Your task to perform on an android device: Search for the new Nike Air Max 270 on Nike.com Image 0: 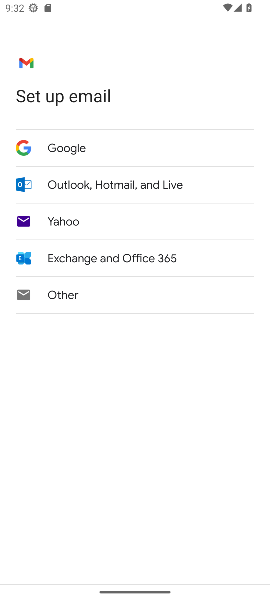
Step 0: press home button
Your task to perform on an android device: Search for the new Nike Air Max 270 on Nike.com Image 1: 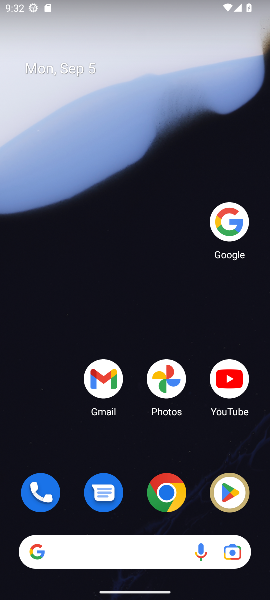
Step 1: click (234, 218)
Your task to perform on an android device: Search for the new Nike Air Max 270 on Nike.com Image 2: 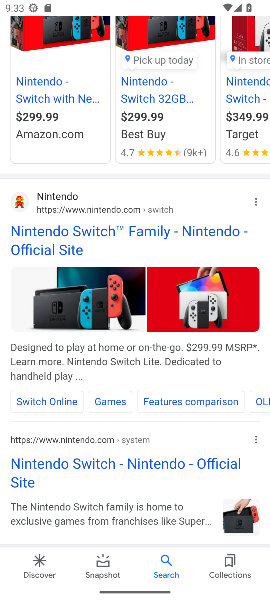
Step 2: drag from (133, 89) to (129, 424)
Your task to perform on an android device: Search for the new Nike Air Max 270 on Nike.com Image 3: 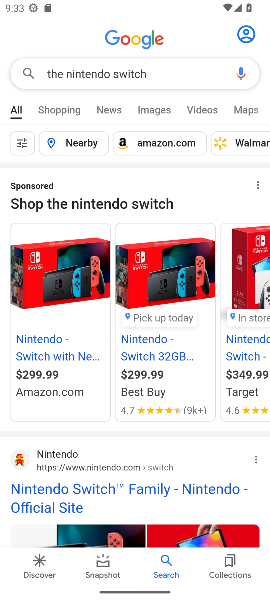
Step 3: drag from (210, 141) to (186, 503)
Your task to perform on an android device: Search for the new Nike Air Max 270 on Nike.com Image 4: 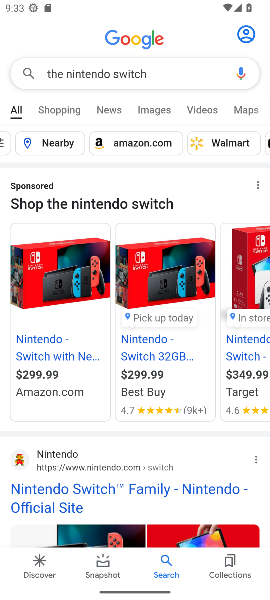
Step 4: click (161, 63)
Your task to perform on an android device: Search for the new Nike Air Max 270 on Nike.com Image 5: 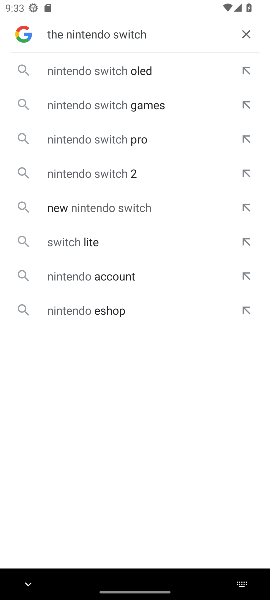
Step 5: click (243, 31)
Your task to perform on an android device: Search for the new Nike Air Max 270 on Nike.com Image 6: 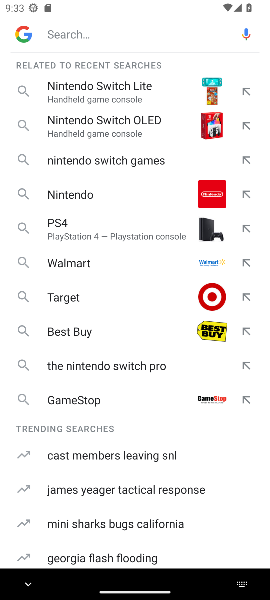
Step 6: click (115, 35)
Your task to perform on an android device: Search for the new Nike Air Max 270 on Nike.com Image 7: 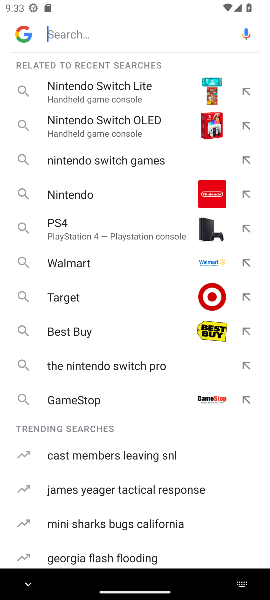
Step 7: type "the new Nike Air Max 270 on Nike.com "
Your task to perform on an android device: Search for the new Nike Air Max 270 on Nike.com Image 8: 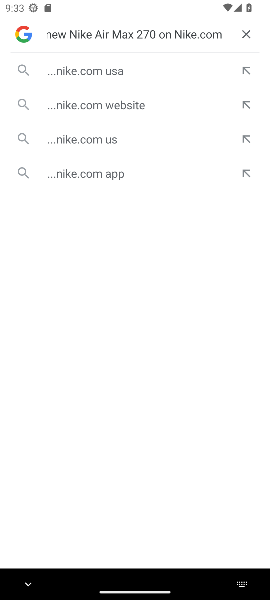
Step 8: click (103, 65)
Your task to perform on an android device: Search for the new Nike Air Max 270 on Nike.com Image 9: 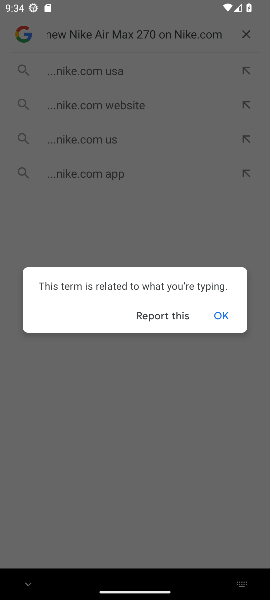
Step 9: click (208, 310)
Your task to perform on an android device: Search for the new Nike Air Max 270 on Nike.com Image 10: 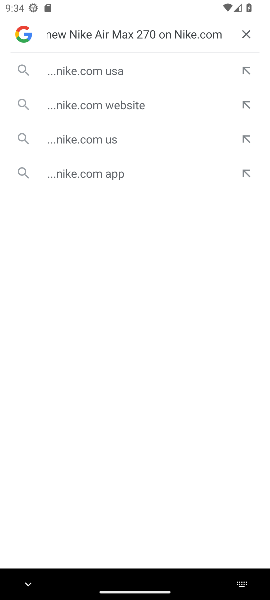
Step 10: click (97, 102)
Your task to perform on an android device: Search for the new Nike Air Max 270 on Nike.com Image 11: 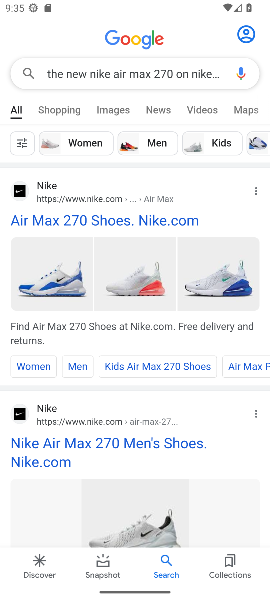
Step 11: task complete